Your task to perform on an android device: all mails in gmail Image 0: 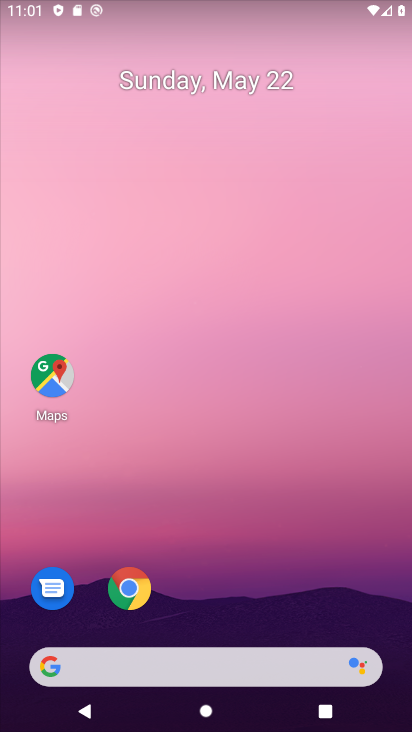
Step 0: drag from (207, 645) to (332, 232)
Your task to perform on an android device: all mails in gmail Image 1: 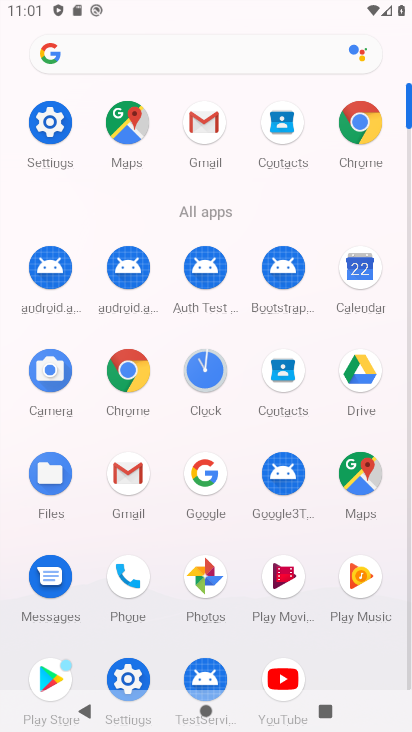
Step 1: click (199, 129)
Your task to perform on an android device: all mails in gmail Image 2: 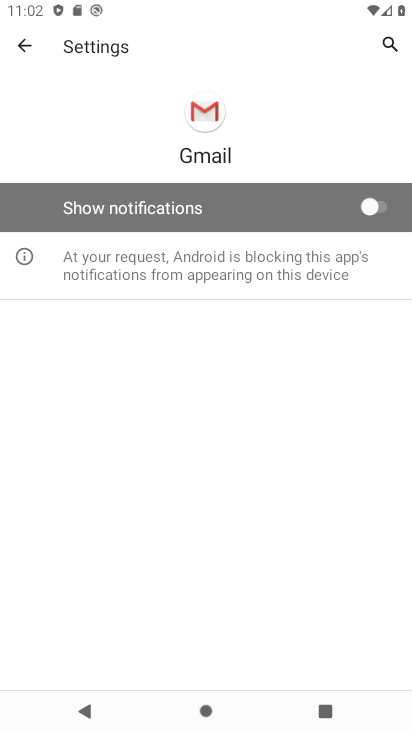
Step 2: click (16, 44)
Your task to perform on an android device: all mails in gmail Image 3: 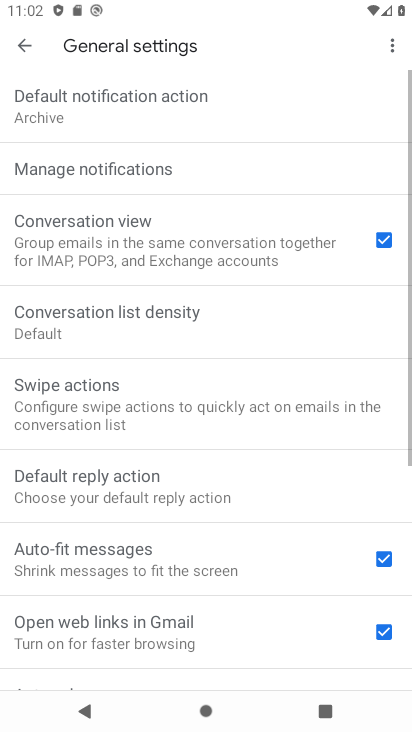
Step 3: click (17, 43)
Your task to perform on an android device: all mails in gmail Image 4: 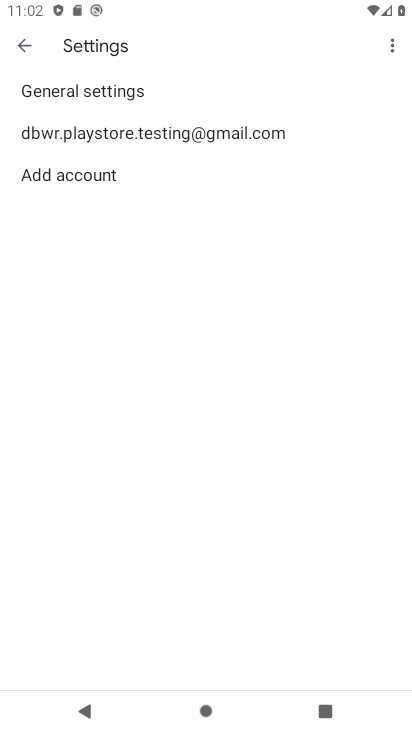
Step 4: click (26, 43)
Your task to perform on an android device: all mails in gmail Image 5: 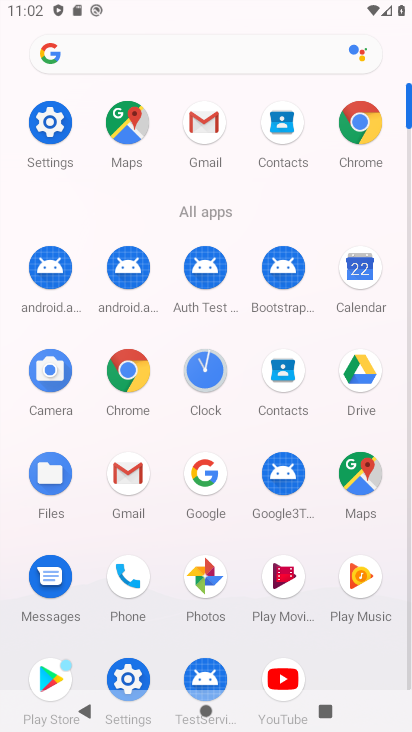
Step 5: click (200, 131)
Your task to perform on an android device: all mails in gmail Image 6: 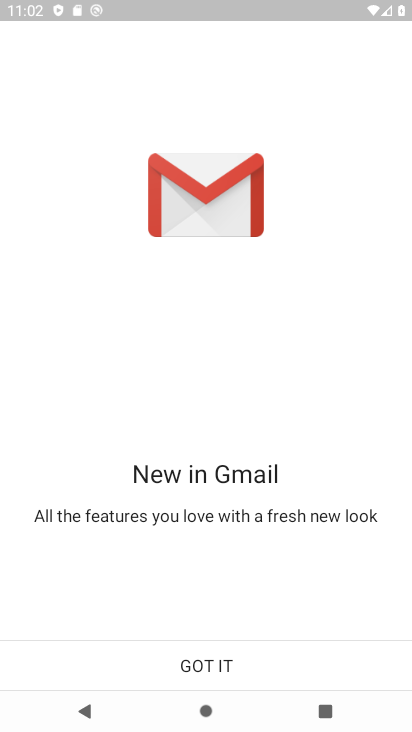
Step 6: click (184, 659)
Your task to perform on an android device: all mails in gmail Image 7: 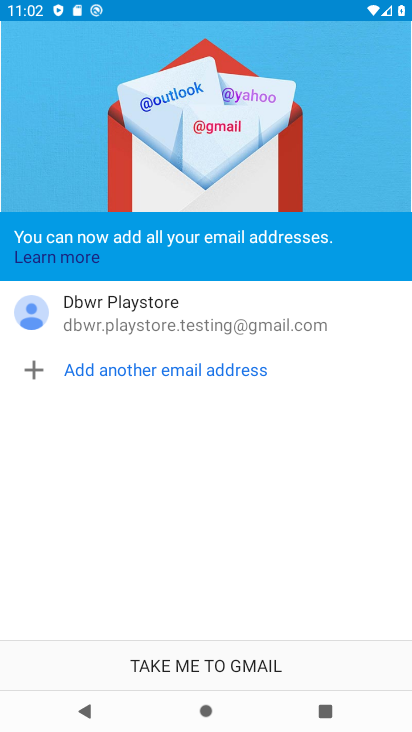
Step 7: click (215, 662)
Your task to perform on an android device: all mails in gmail Image 8: 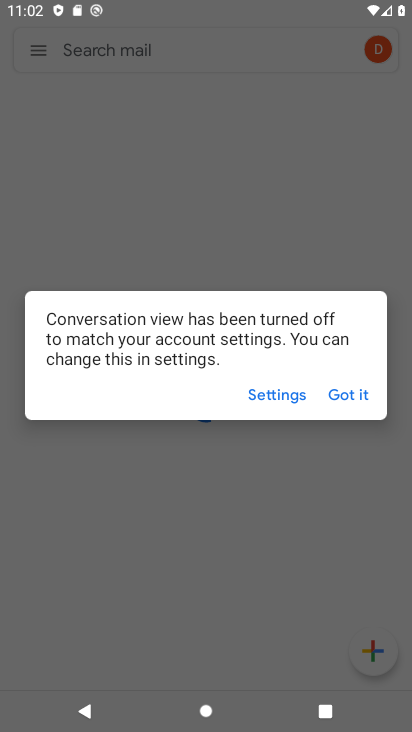
Step 8: click (369, 396)
Your task to perform on an android device: all mails in gmail Image 9: 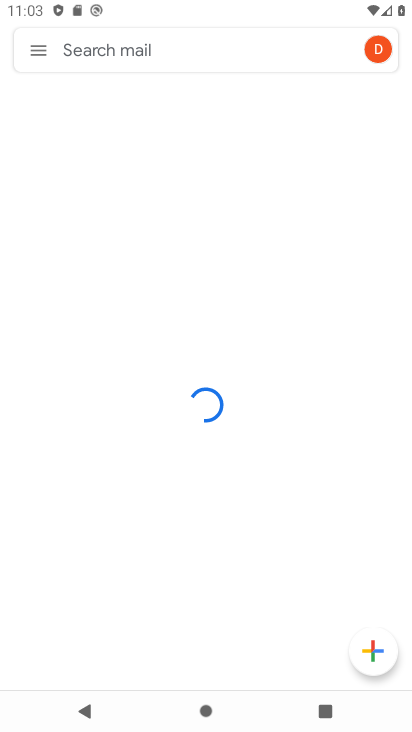
Step 9: task complete